Your task to perform on an android device: toggle location history Image 0: 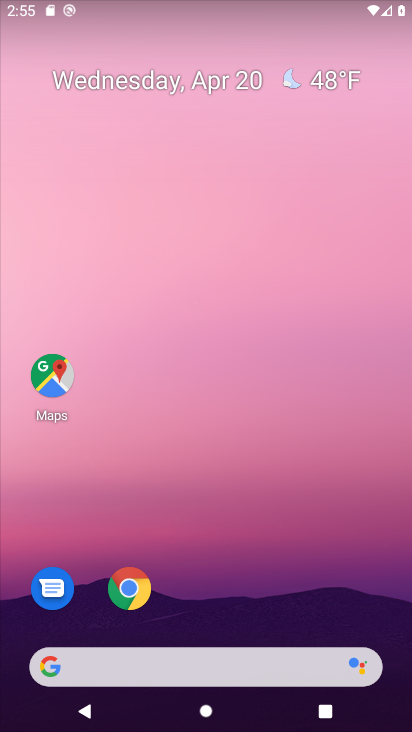
Step 0: drag from (336, 592) to (338, 116)
Your task to perform on an android device: toggle location history Image 1: 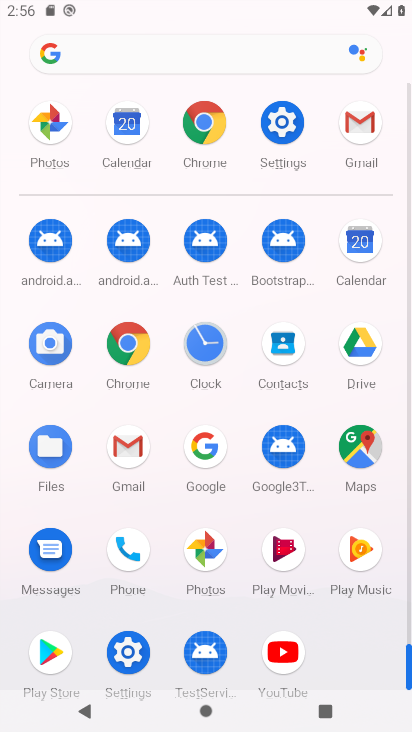
Step 1: click (290, 122)
Your task to perform on an android device: toggle location history Image 2: 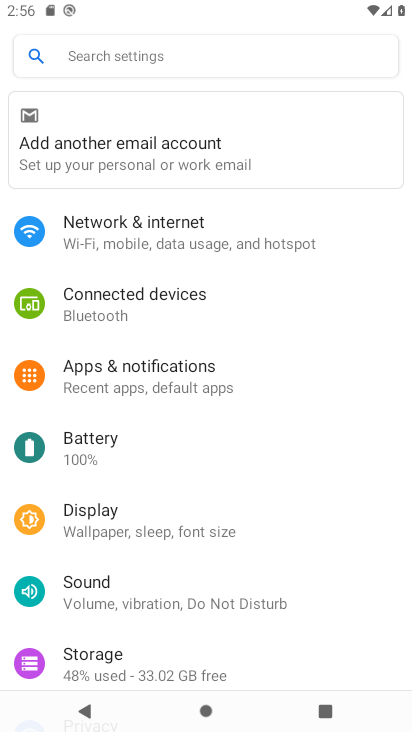
Step 2: drag from (365, 599) to (371, 491)
Your task to perform on an android device: toggle location history Image 3: 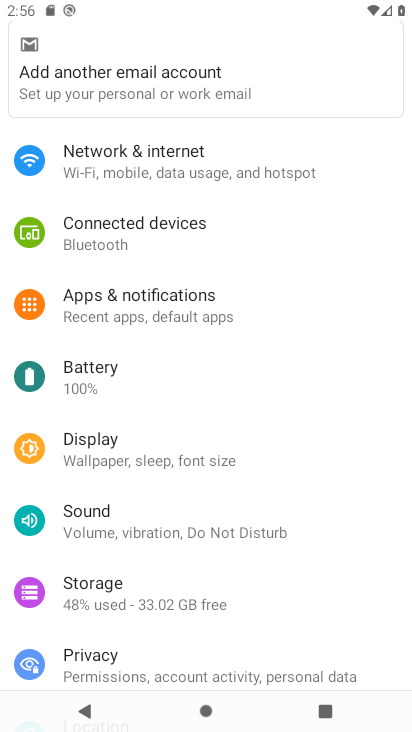
Step 3: drag from (376, 535) to (376, 453)
Your task to perform on an android device: toggle location history Image 4: 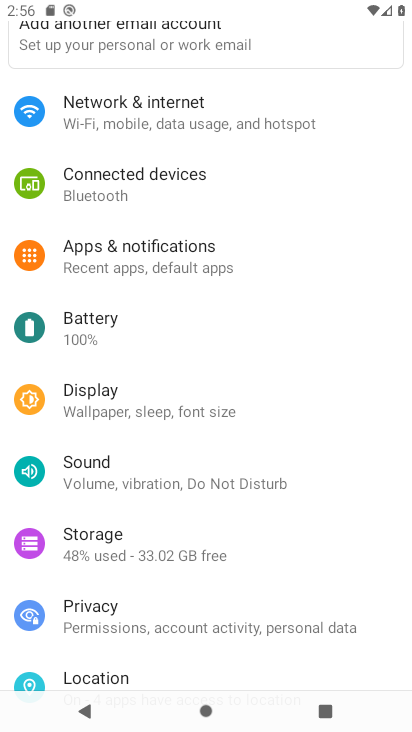
Step 4: drag from (386, 567) to (382, 389)
Your task to perform on an android device: toggle location history Image 5: 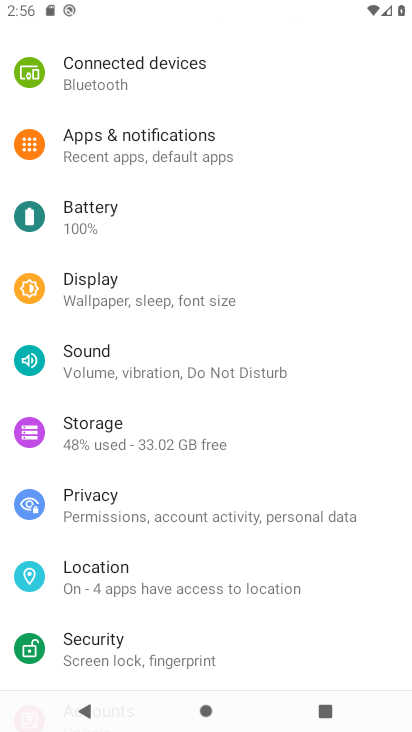
Step 5: drag from (368, 547) to (368, 430)
Your task to perform on an android device: toggle location history Image 6: 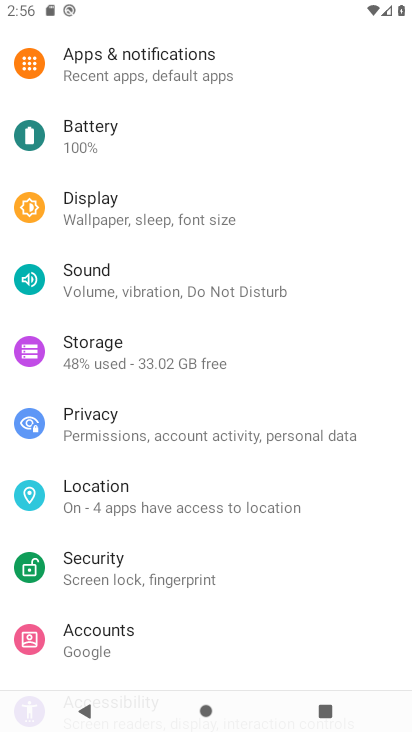
Step 6: click (267, 499)
Your task to perform on an android device: toggle location history Image 7: 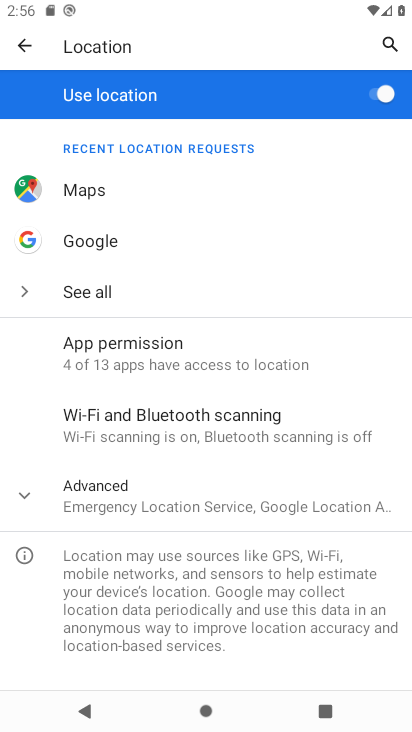
Step 7: click (333, 499)
Your task to perform on an android device: toggle location history Image 8: 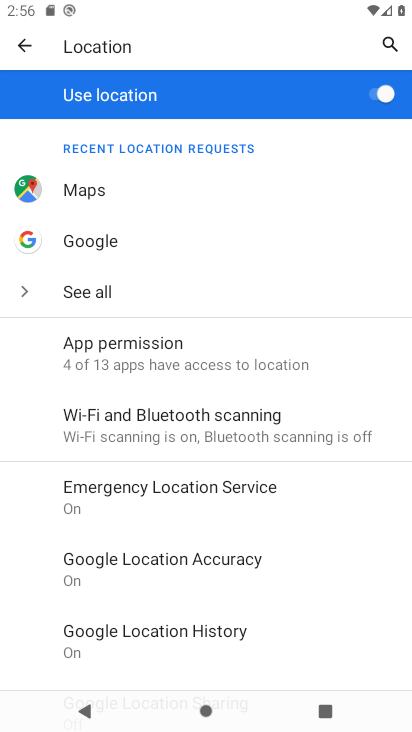
Step 8: drag from (327, 608) to (331, 447)
Your task to perform on an android device: toggle location history Image 9: 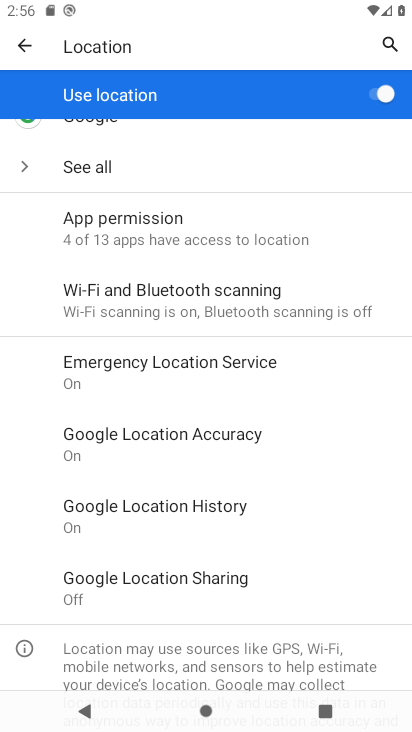
Step 9: drag from (329, 577) to (331, 489)
Your task to perform on an android device: toggle location history Image 10: 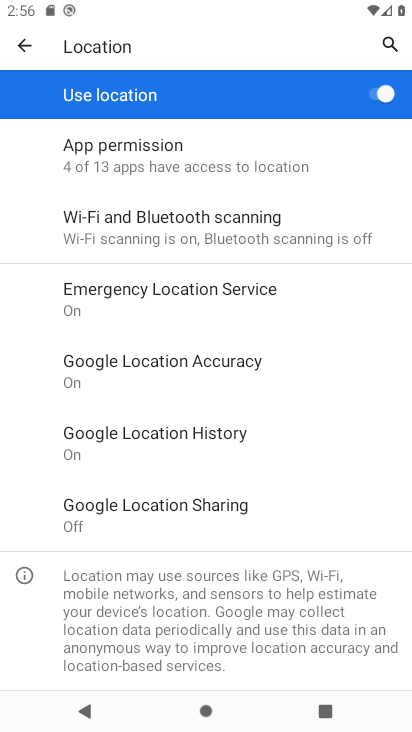
Step 10: click (188, 447)
Your task to perform on an android device: toggle location history Image 11: 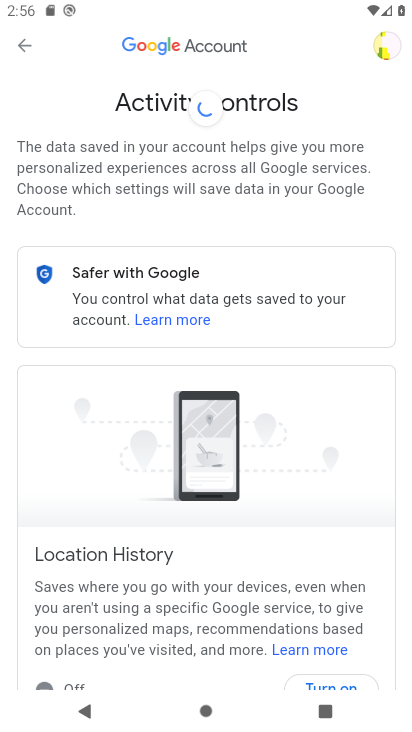
Step 11: drag from (306, 526) to (307, 412)
Your task to perform on an android device: toggle location history Image 12: 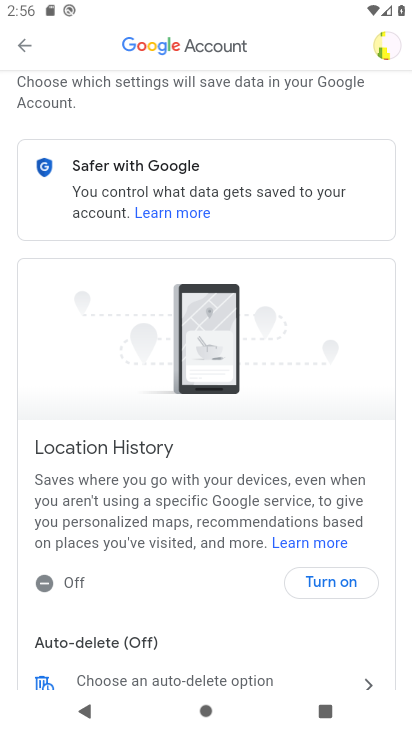
Step 12: drag from (239, 594) to (241, 460)
Your task to perform on an android device: toggle location history Image 13: 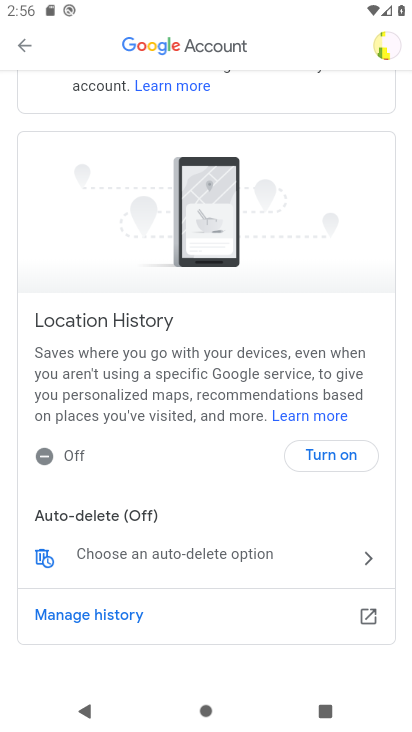
Step 13: click (322, 446)
Your task to perform on an android device: toggle location history Image 14: 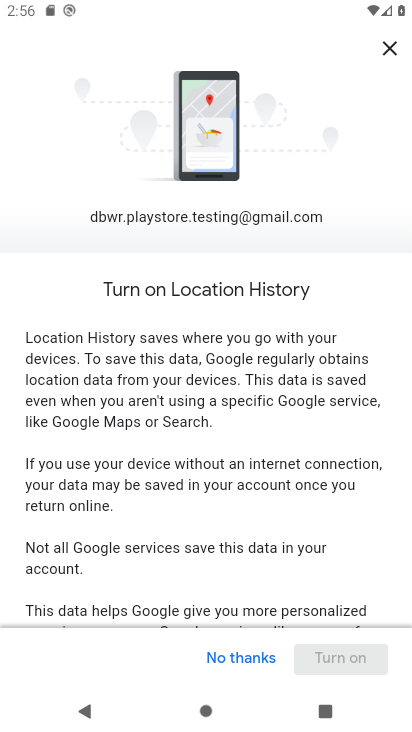
Step 14: drag from (286, 504) to (287, 435)
Your task to perform on an android device: toggle location history Image 15: 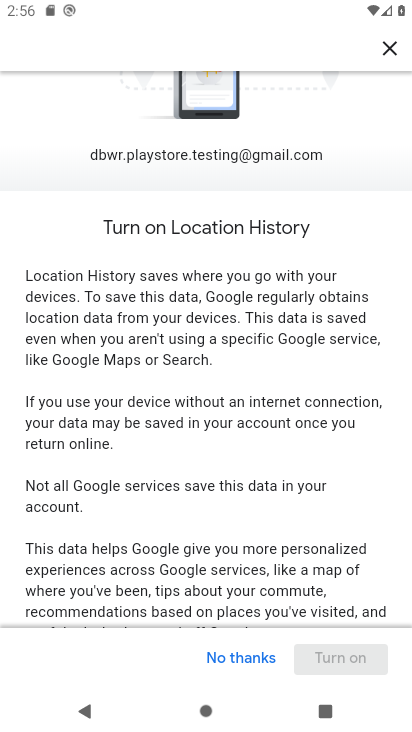
Step 15: drag from (290, 565) to (286, 423)
Your task to perform on an android device: toggle location history Image 16: 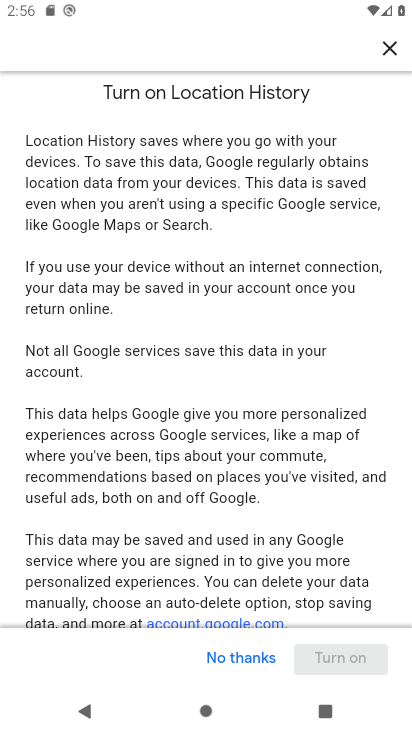
Step 16: drag from (284, 576) to (286, 472)
Your task to perform on an android device: toggle location history Image 17: 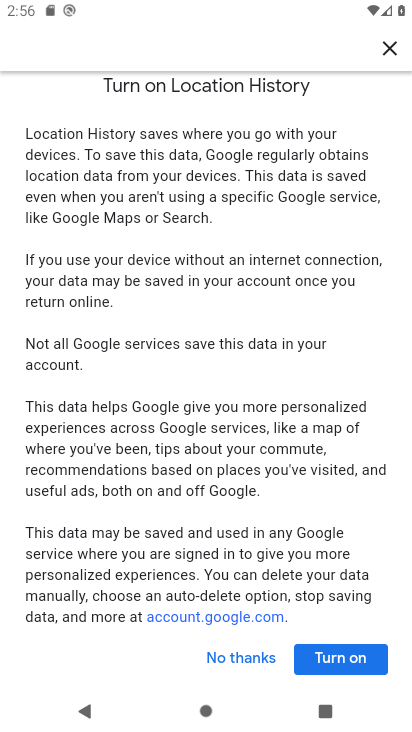
Step 17: click (338, 654)
Your task to perform on an android device: toggle location history Image 18: 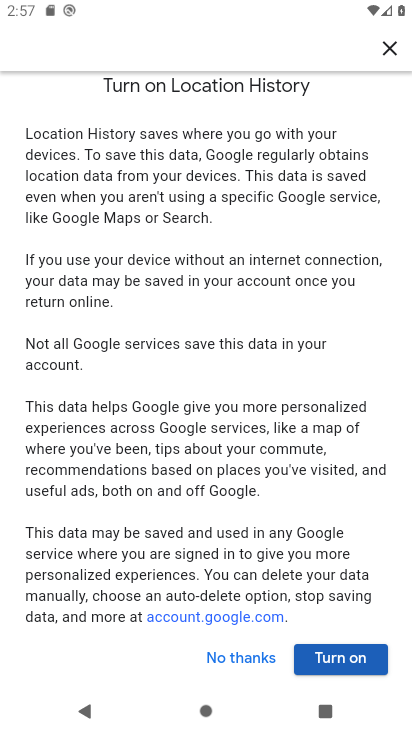
Step 18: click (343, 660)
Your task to perform on an android device: toggle location history Image 19: 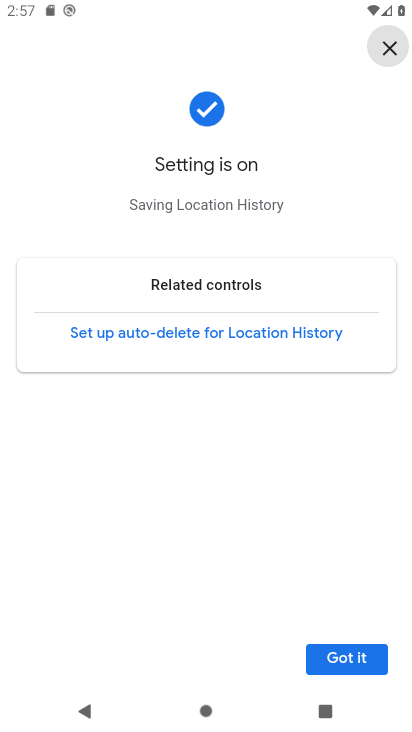
Step 19: task complete